Your task to perform on an android device: turn on improve location accuracy Image 0: 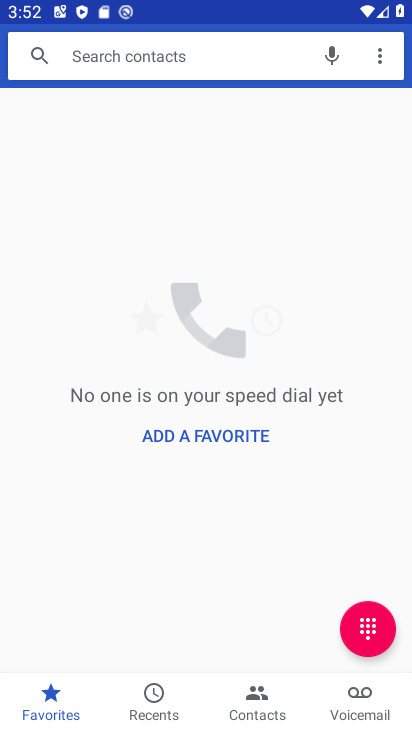
Step 0: press home button
Your task to perform on an android device: turn on improve location accuracy Image 1: 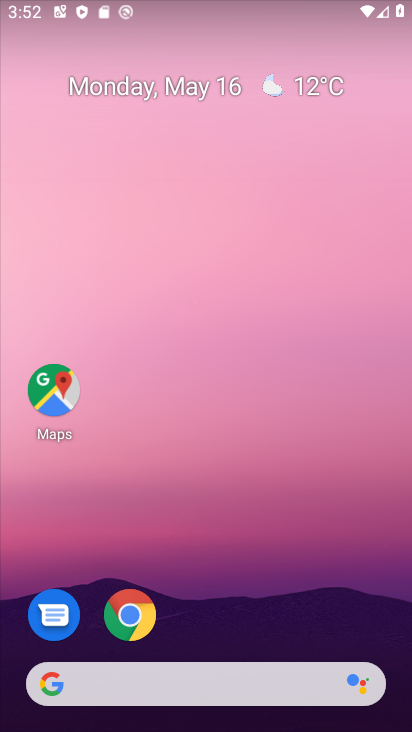
Step 1: drag from (160, 721) to (146, 57)
Your task to perform on an android device: turn on improve location accuracy Image 2: 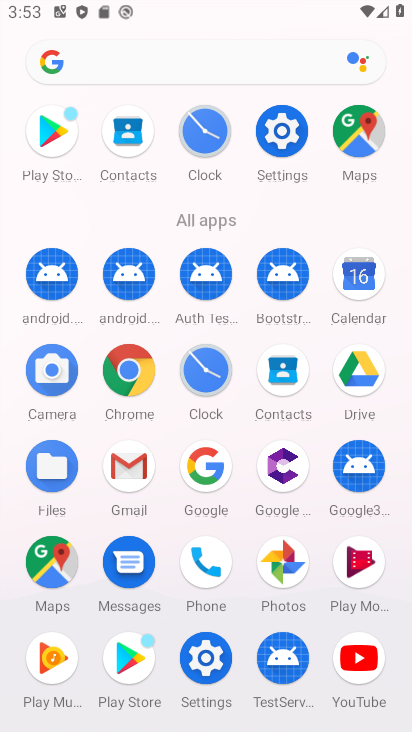
Step 2: click (283, 122)
Your task to perform on an android device: turn on improve location accuracy Image 3: 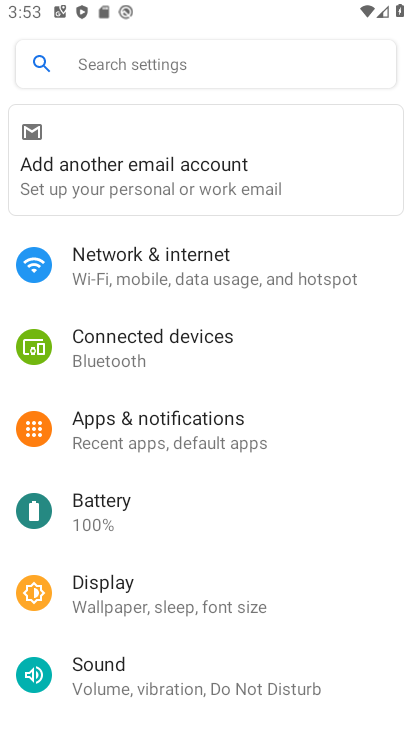
Step 3: drag from (111, 658) to (135, 298)
Your task to perform on an android device: turn on improve location accuracy Image 4: 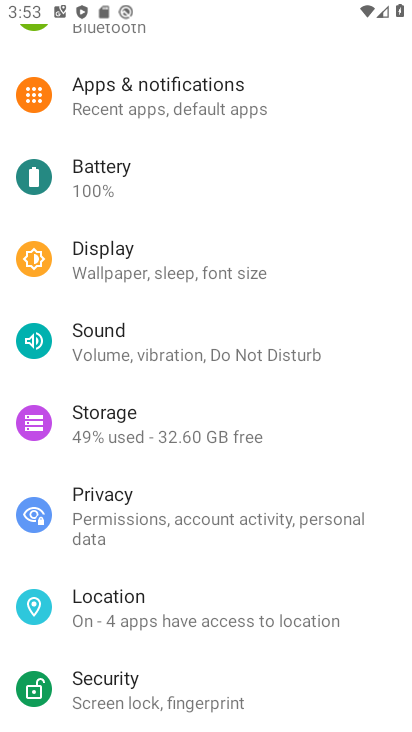
Step 4: click (122, 600)
Your task to perform on an android device: turn on improve location accuracy Image 5: 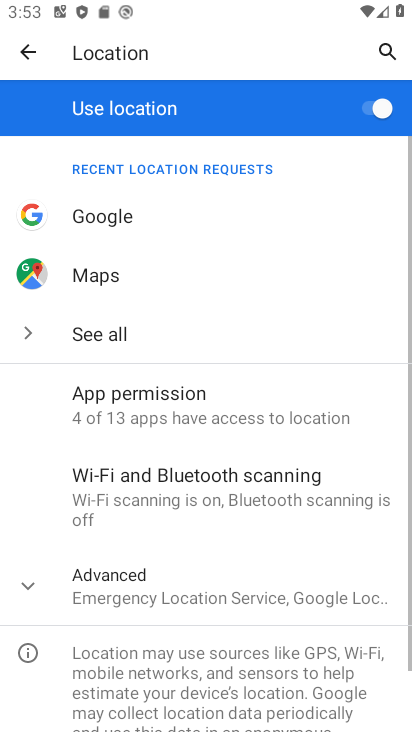
Step 5: click (157, 585)
Your task to perform on an android device: turn on improve location accuracy Image 6: 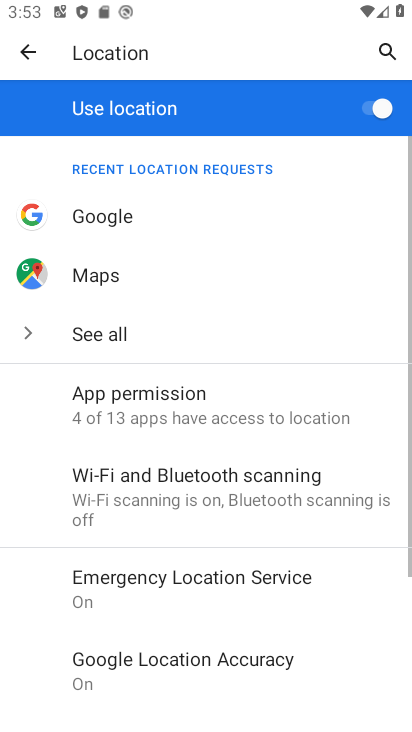
Step 6: drag from (186, 656) to (187, 384)
Your task to perform on an android device: turn on improve location accuracy Image 7: 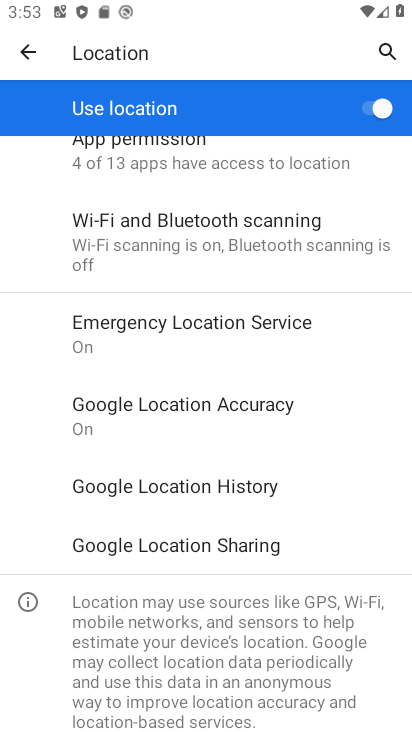
Step 7: click (172, 406)
Your task to perform on an android device: turn on improve location accuracy Image 8: 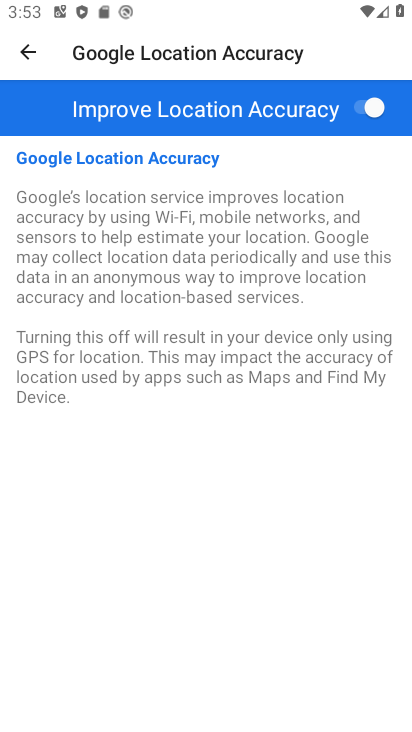
Step 8: task complete